Your task to perform on an android device: empty trash in the gmail app Image 0: 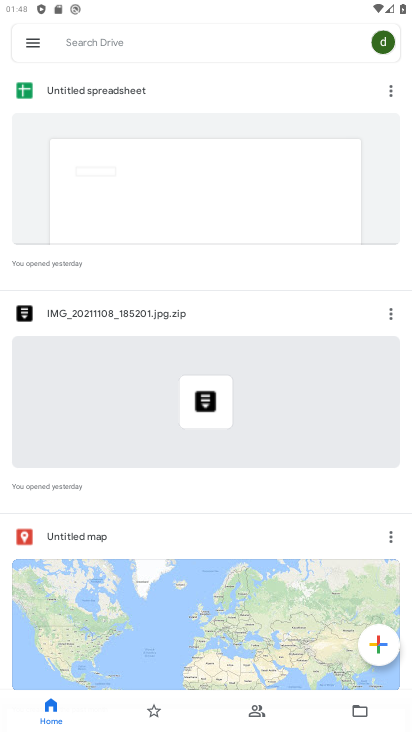
Step 0: press home button
Your task to perform on an android device: empty trash in the gmail app Image 1: 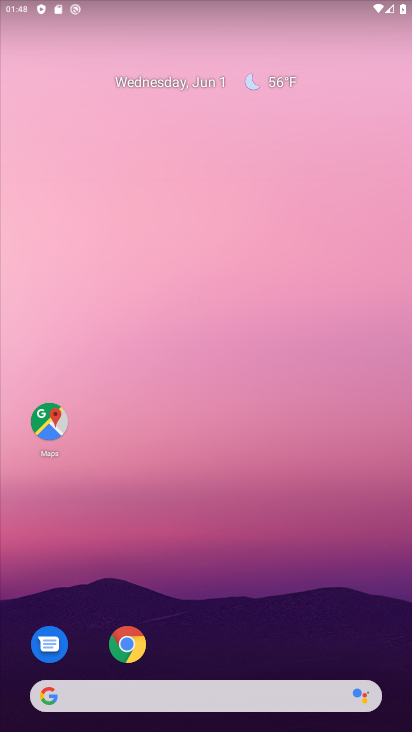
Step 1: drag from (153, 663) to (151, 305)
Your task to perform on an android device: empty trash in the gmail app Image 2: 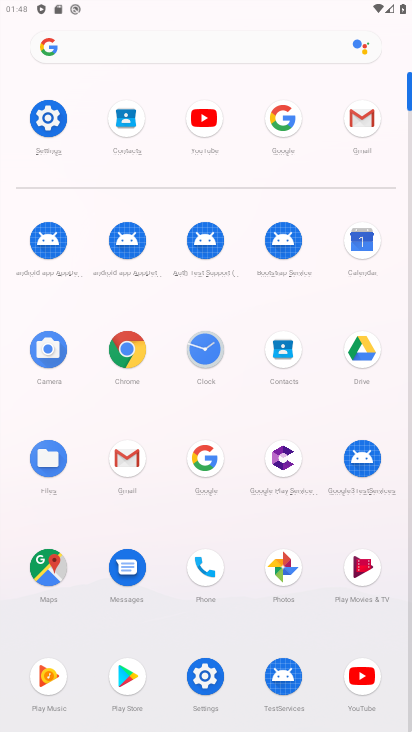
Step 2: click (133, 457)
Your task to perform on an android device: empty trash in the gmail app Image 3: 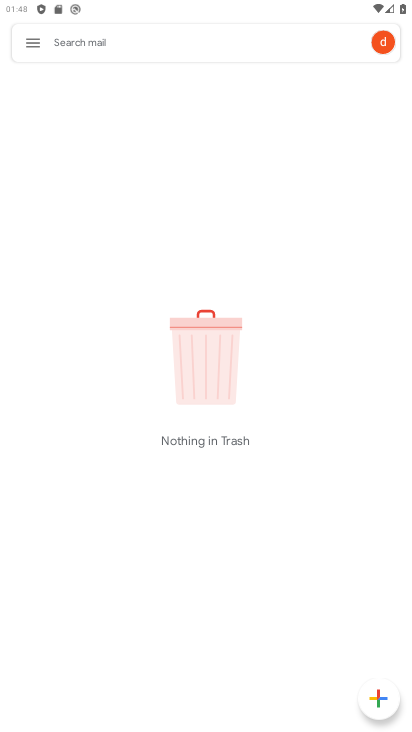
Step 3: click (37, 47)
Your task to perform on an android device: empty trash in the gmail app Image 4: 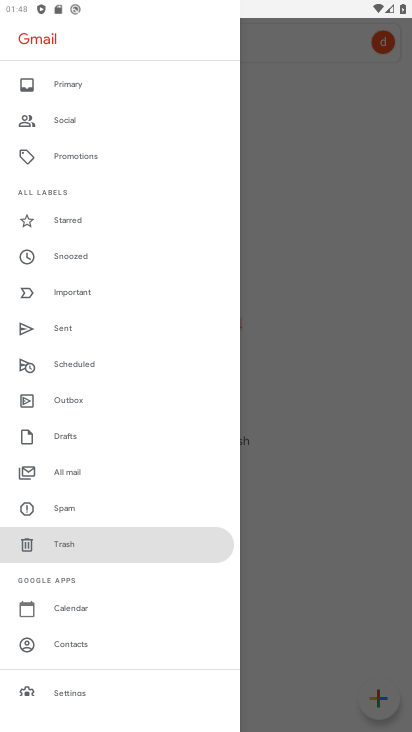
Step 4: click (66, 549)
Your task to perform on an android device: empty trash in the gmail app Image 5: 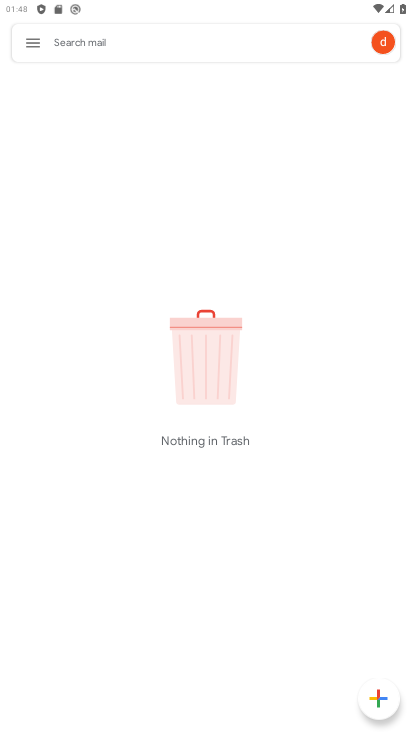
Step 5: task complete